Your task to perform on an android device: visit the assistant section in the google photos Image 0: 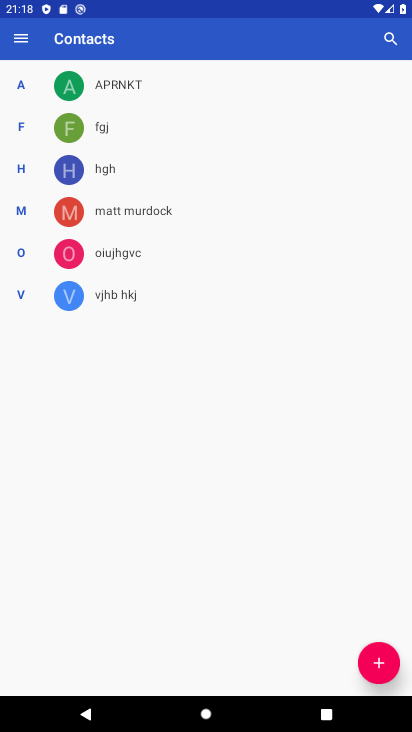
Step 0: press home button
Your task to perform on an android device: visit the assistant section in the google photos Image 1: 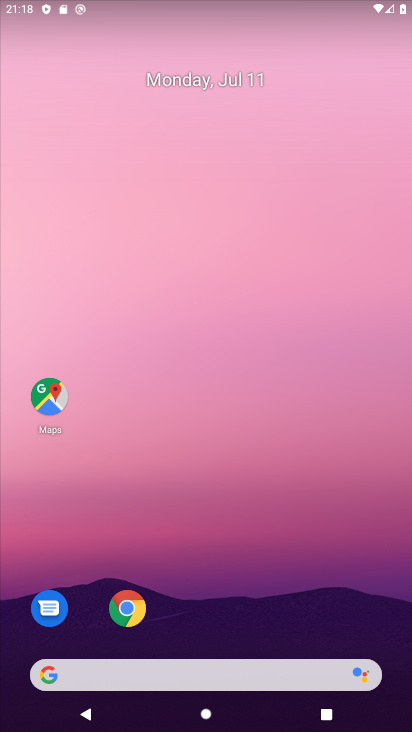
Step 1: drag from (171, 553) to (192, 212)
Your task to perform on an android device: visit the assistant section in the google photos Image 2: 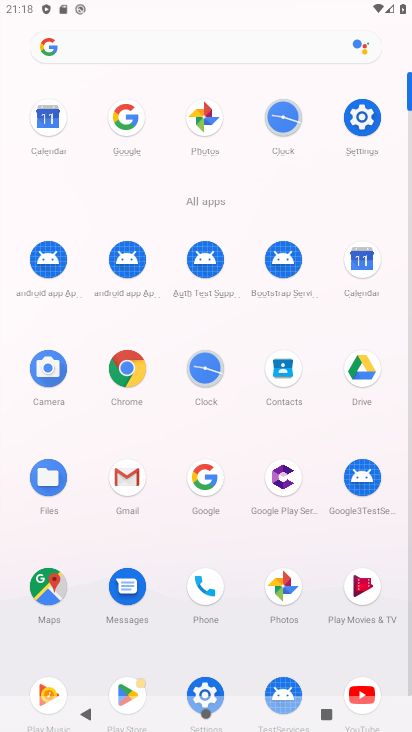
Step 2: click (356, 120)
Your task to perform on an android device: visit the assistant section in the google photos Image 3: 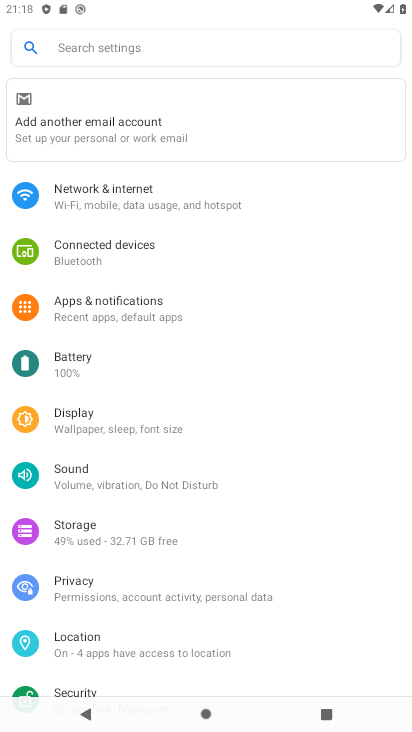
Step 3: press back button
Your task to perform on an android device: visit the assistant section in the google photos Image 4: 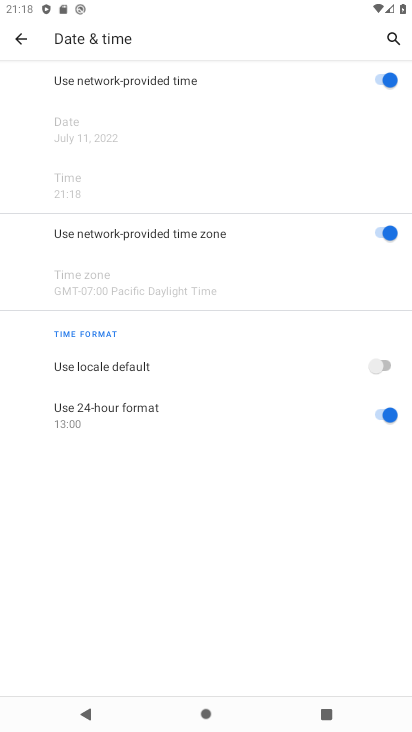
Step 4: click (17, 34)
Your task to perform on an android device: visit the assistant section in the google photos Image 5: 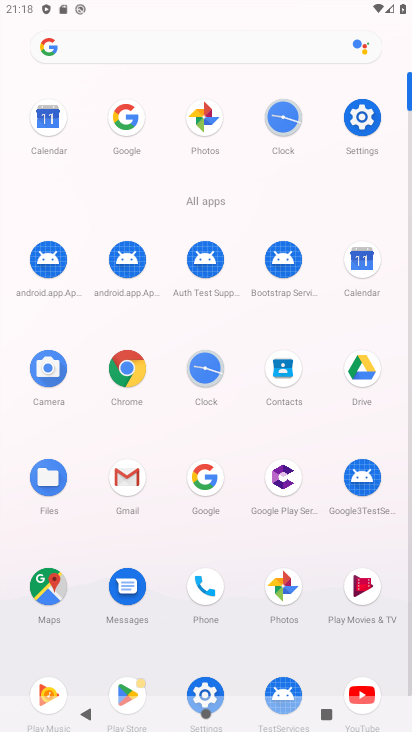
Step 5: click (284, 568)
Your task to perform on an android device: visit the assistant section in the google photos Image 6: 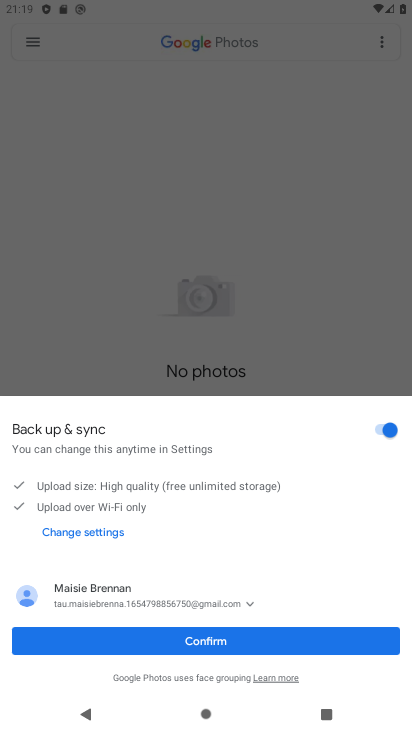
Step 6: click (198, 644)
Your task to perform on an android device: visit the assistant section in the google photos Image 7: 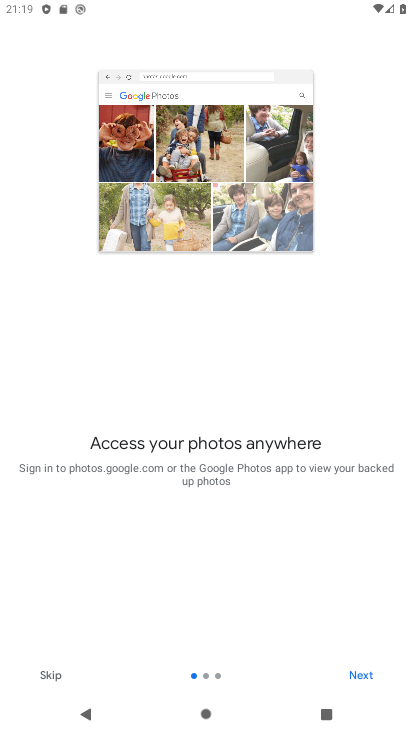
Step 7: click (359, 678)
Your task to perform on an android device: visit the assistant section in the google photos Image 8: 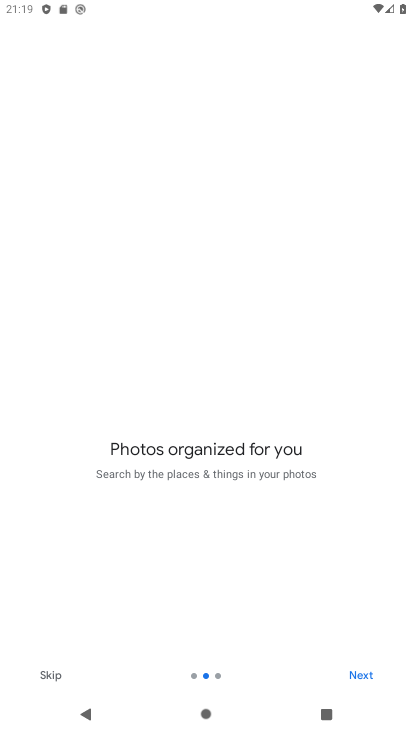
Step 8: click (359, 678)
Your task to perform on an android device: visit the assistant section in the google photos Image 9: 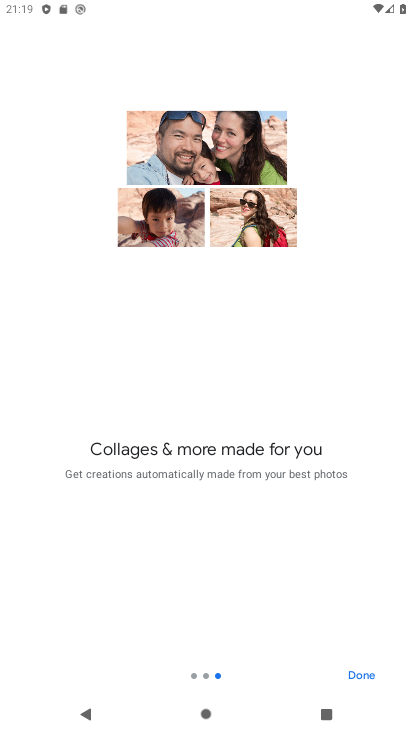
Step 9: click (359, 678)
Your task to perform on an android device: visit the assistant section in the google photos Image 10: 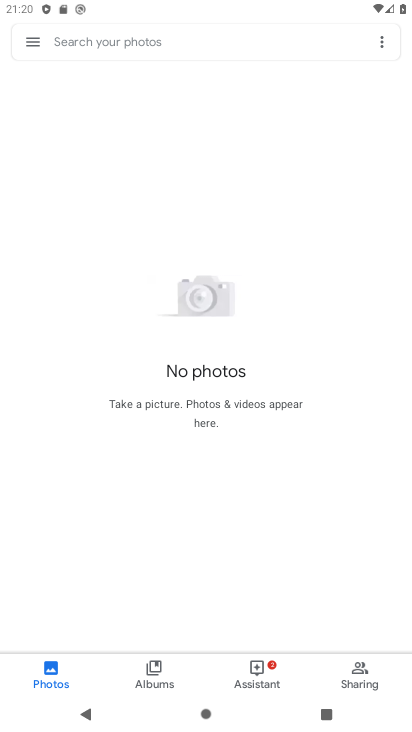
Step 10: click (265, 674)
Your task to perform on an android device: visit the assistant section in the google photos Image 11: 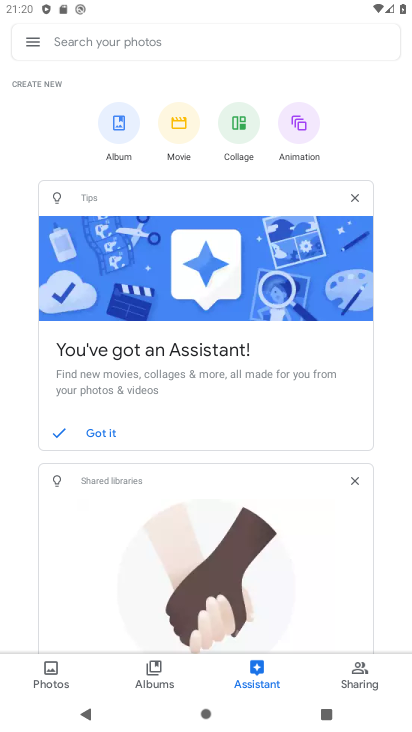
Step 11: task complete